Your task to perform on an android device: turn off picture-in-picture Image 0: 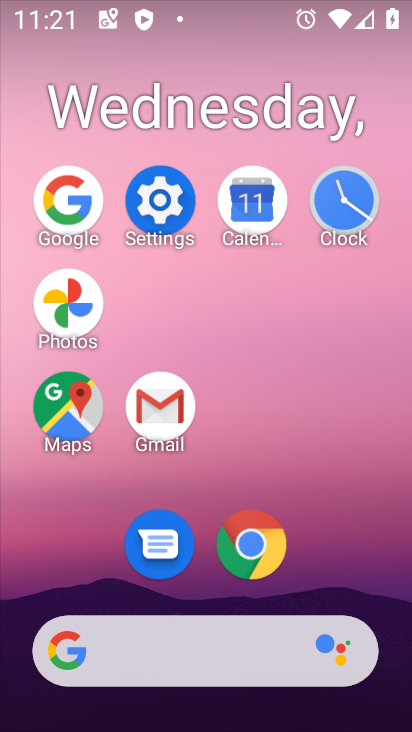
Step 0: click (250, 547)
Your task to perform on an android device: turn off picture-in-picture Image 1: 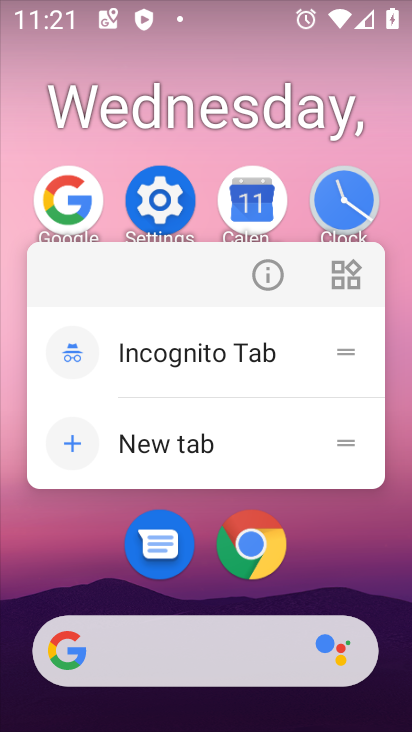
Step 1: click (271, 278)
Your task to perform on an android device: turn off picture-in-picture Image 2: 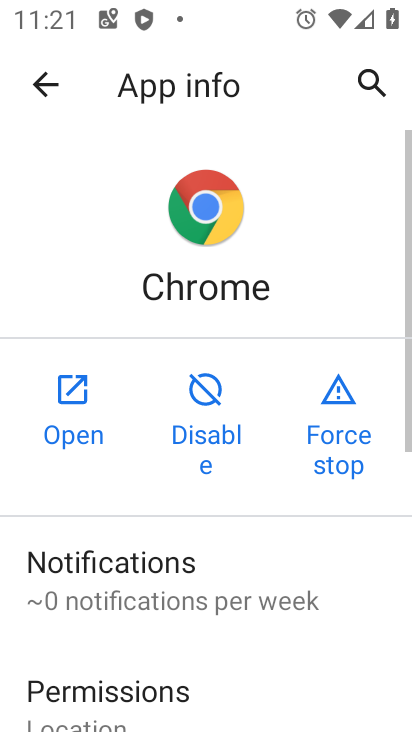
Step 2: drag from (306, 648) to (263, 124)
Your task to perform on an android device: turn off picture-in-picture Image 3: 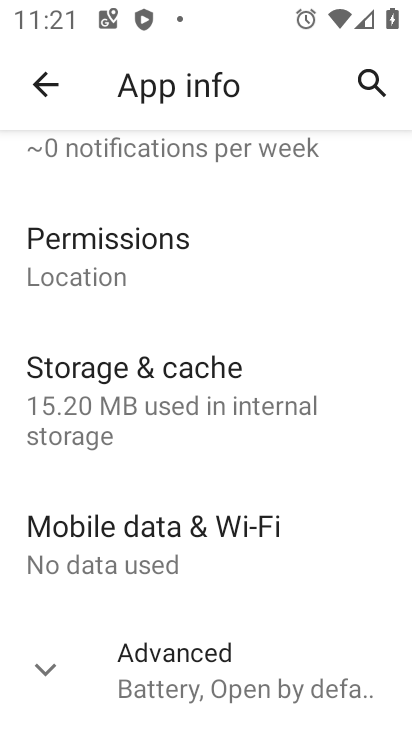
Step 3: drag from (242, 512) to (276, 139)
Your task to perform on an android device: turn off picture-in-picture Image 4: 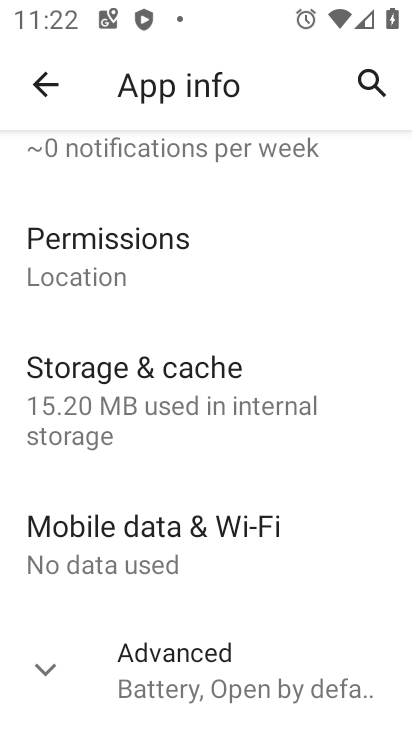
Step 4: click (190, 660)
Your task to perform on an android device: turn off picture-in-picture Image 5: 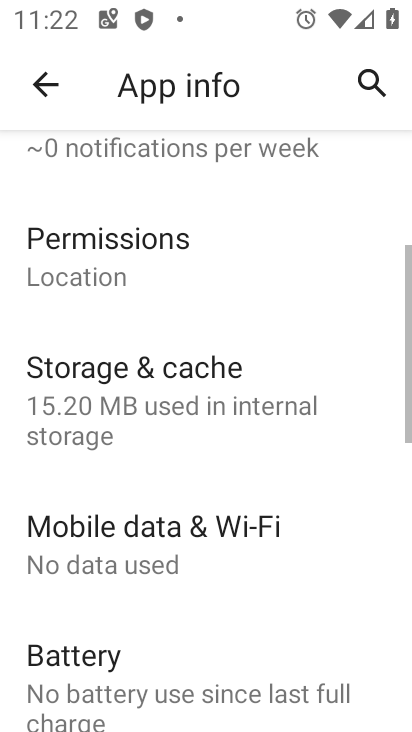
Step 5: drag from (332, 636) to (360, 132)
Your task to perform on an android device: turn off picture-in-picture Image 6: 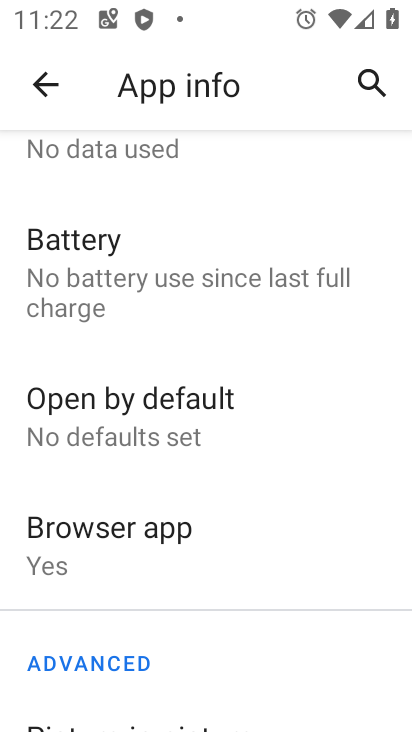
Step 6: drag from (275, 613) to (283, 108)
Your task to perform on an android device: turn off picture-in-picture Image 7: 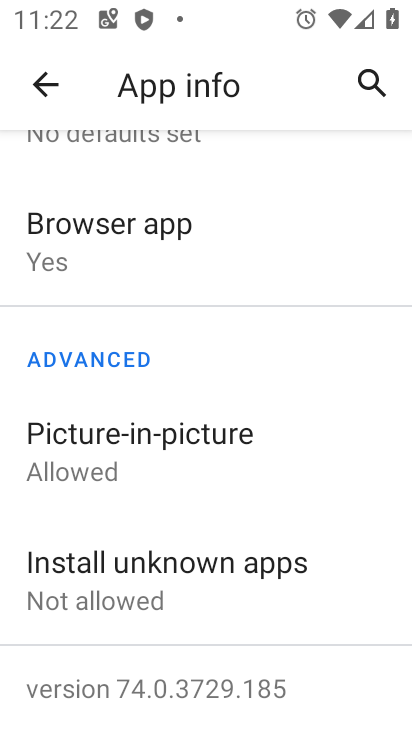
Step 7: click (157, 438)
Your task to perform on an android device: turn off picture-in-picture Image 8: 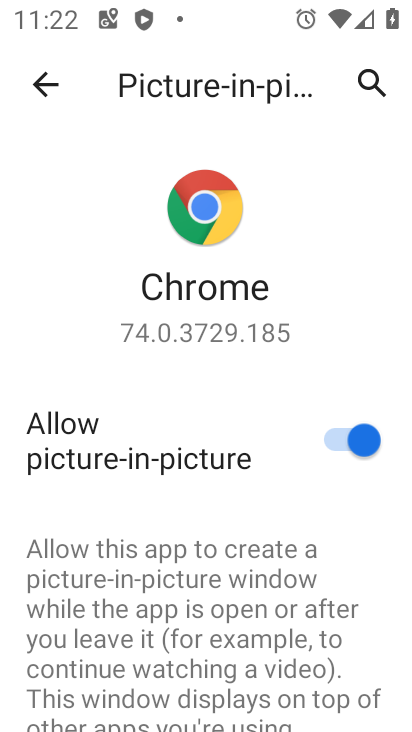
Step 8: click (340, 429)
Your task to perform on an android device: turn off picture-in-picture Image 9: 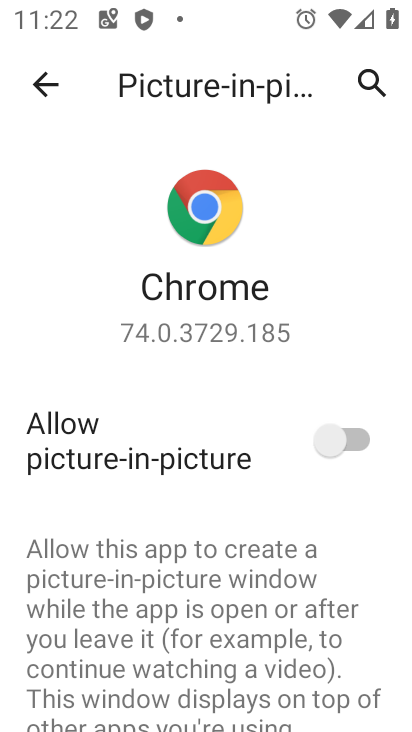
Step 9: task complete